Your task to perform on an android device: Open Google Image 0: 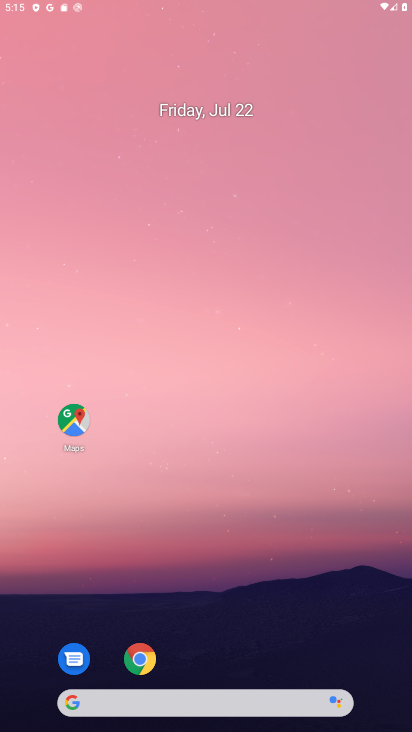
Step 0: press home button
Your task to perform on an android device: Open Google Image 1: 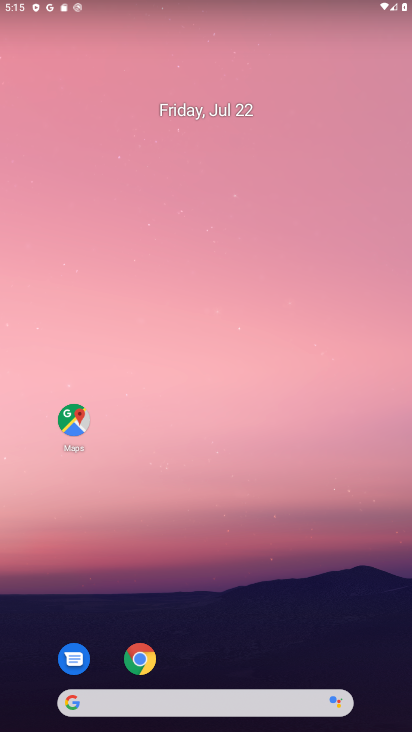
Step 1: drag from (224, 644) to (252, 123)
Your task to perform on an android device: Open Google Image 2: 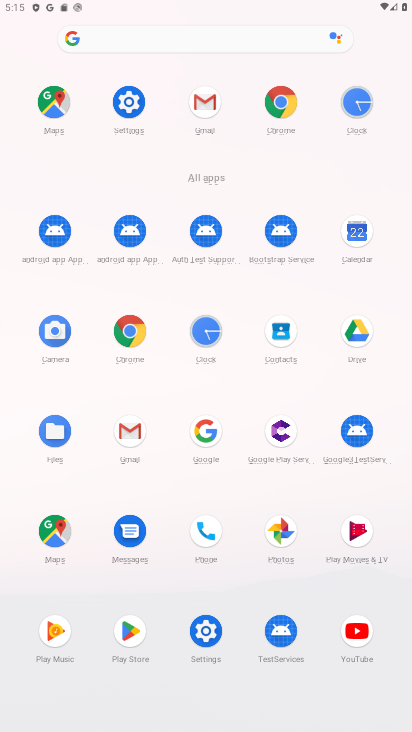
Step 2: click (206, 428)
Your task to perform on an android device: Open Google Image 3: 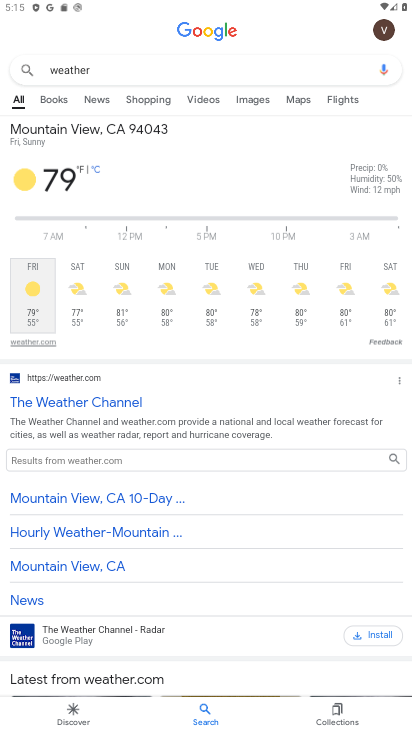
Step 3: task complete